Your task to perform on an android device: clear all cookies in the chrome app Image 0: 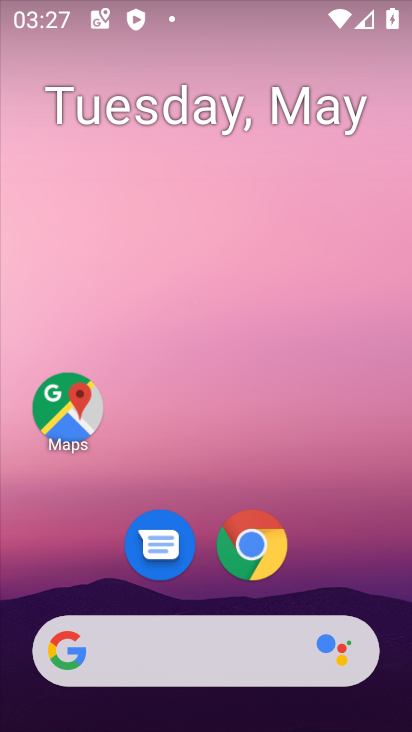
Step 0: click (250, 539)
Your task to perform on an android device: clear all cookies in the chrome app Image 1: 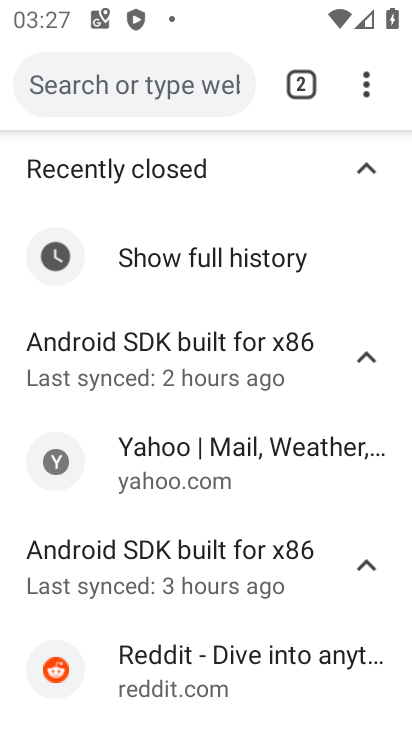
Step 1: click (364, 91)
Your task to perform on an android device: clear all cookies in the chrome app Image 2: 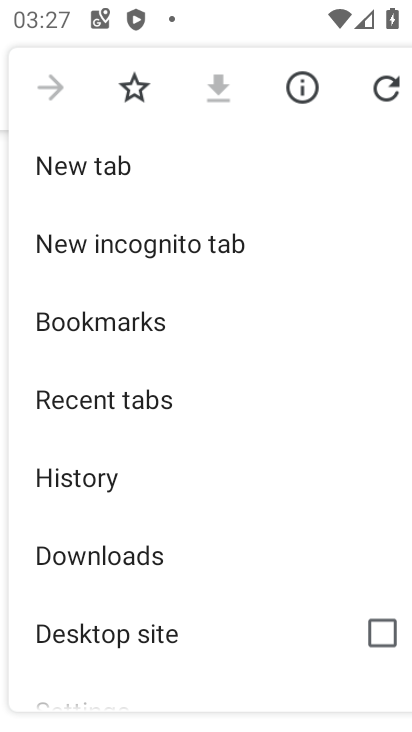
Step 2: click (84, 473)
Your task to perform on an android device: clear all cookies in the chrome app Image 3: 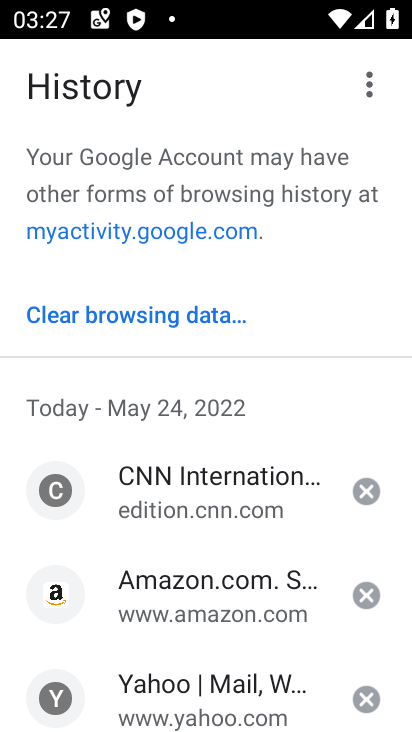
Step 3: click (124, 308)
Your task to perform on an android device: clear all cookies in the chrome app Image 4: 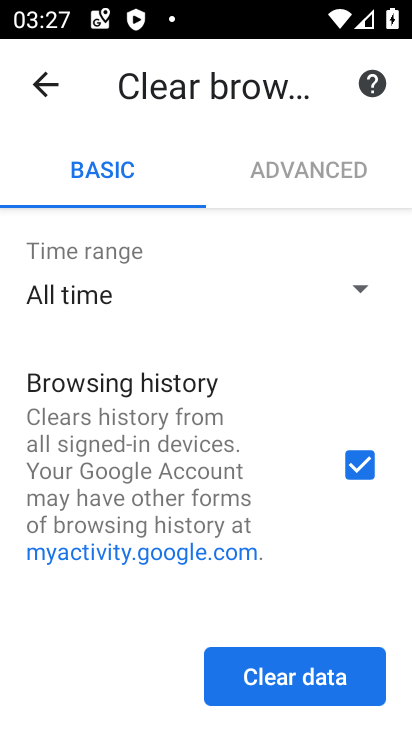
Step 4: click (355, 467)
Your task to perform on an android device: clear all cookies in the chrome app Image 5: 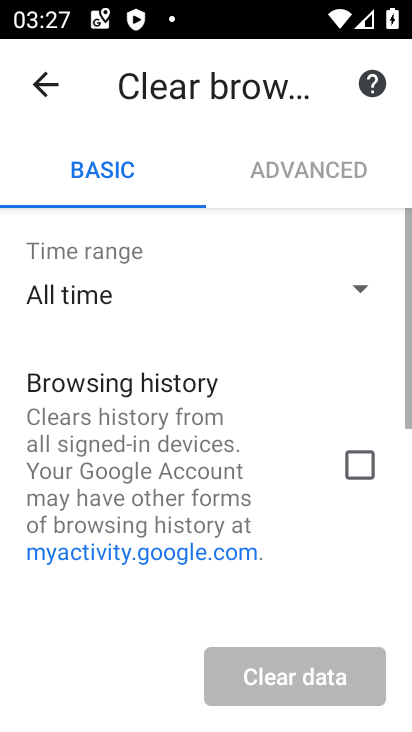
Step 5: drag from (308, 554) to (225, 165)
Your task to perform on an android device: clear all cookies in the chrome app Image 6: 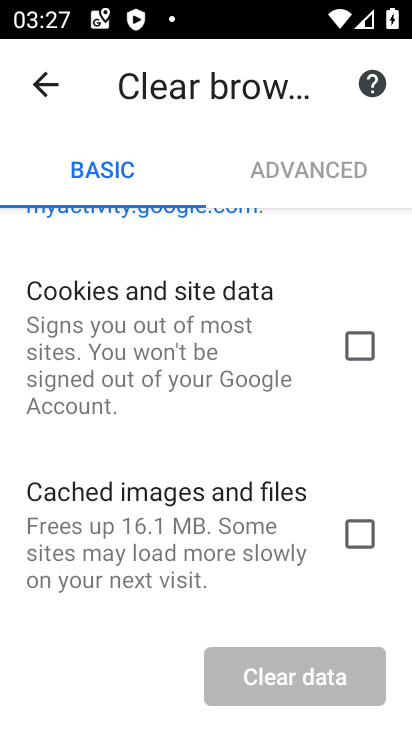
Step 6: click (359, 350)
Your task to perform on an android device: clear all cookies in the chrome app Image 7: 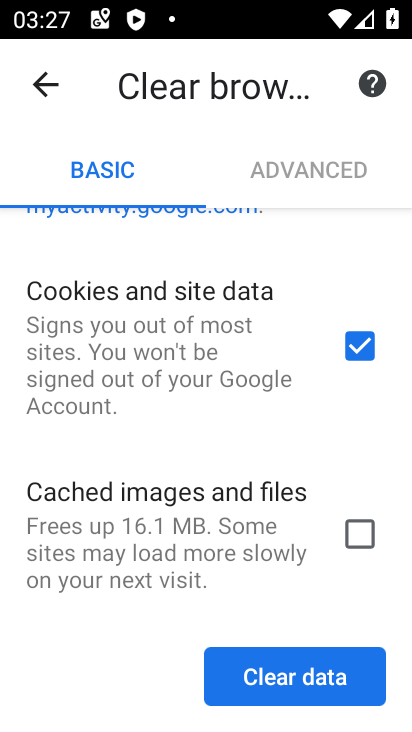
Step 7: click (299, 689)
Your task to perform on an android device: clear all cookies in the chrome app Image 8: 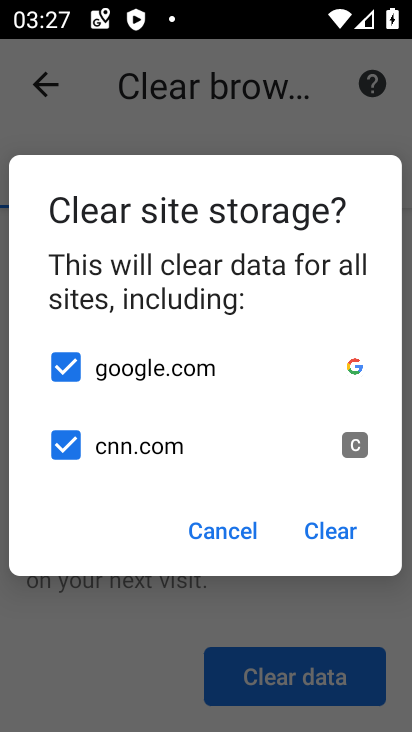
Step 8: click (337, 529)
Your task to perform on an android device: clear all cookies in the chrome app Image 9: 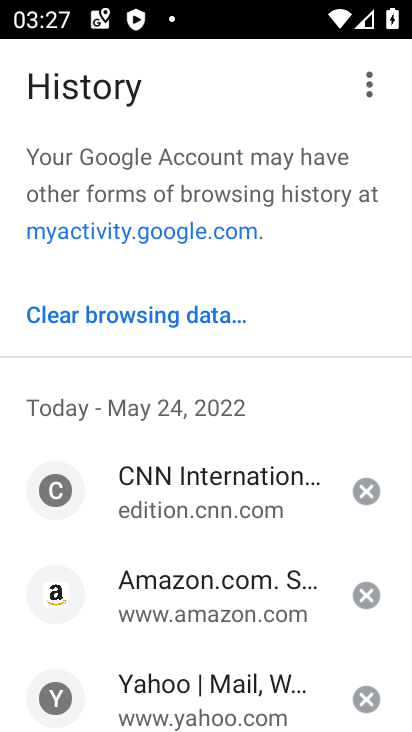
Step 9: task complete